Your task to perform on an android device: Open Reddit.com Image 0: 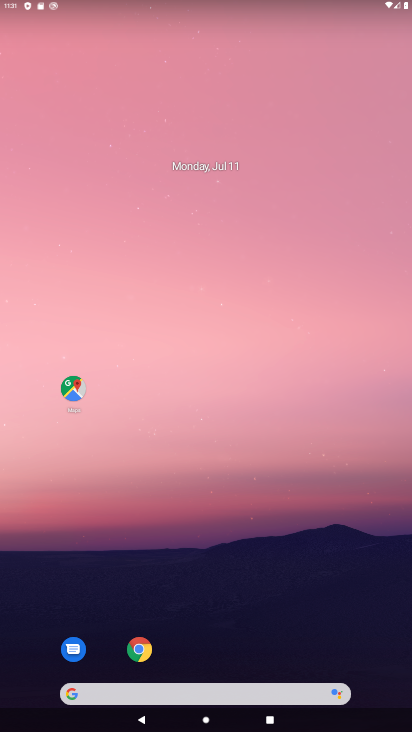
Step 0: drag from (259, 623) to (394, 11)
Your task to perform on an android device: Open Reddit.com Image 1: 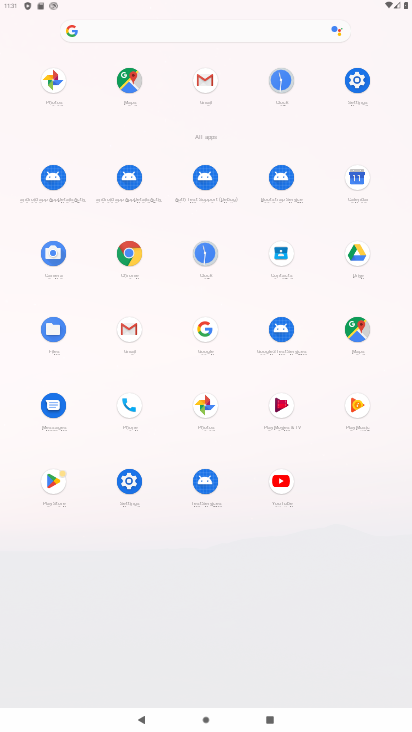
Step 1: click (134, 264)
Your task to perform on an android device: Open Reddit.com Image 2: 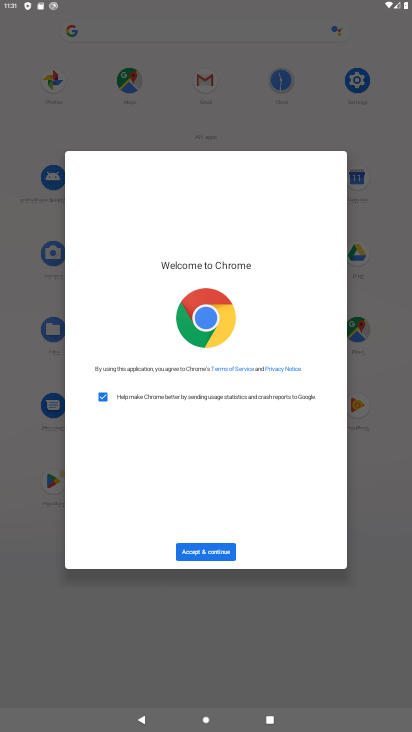
Step 2: click (213, 544)
Your task to perform on an android device: Open Reddit.com Image 3: 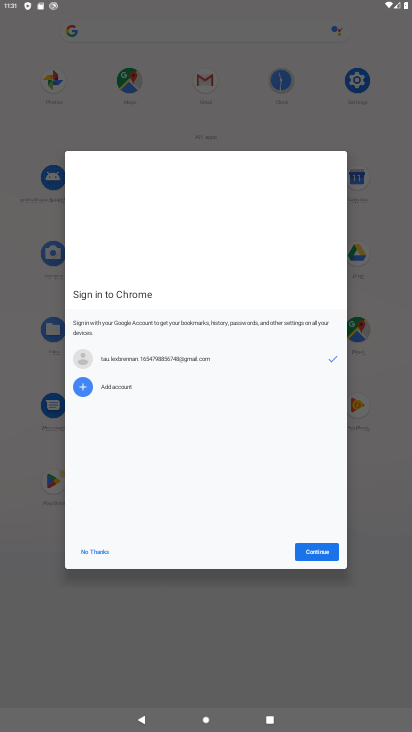
Step 3: click (99, 554)
Your task to perform on an android device: Open Reddit.com Image 4: 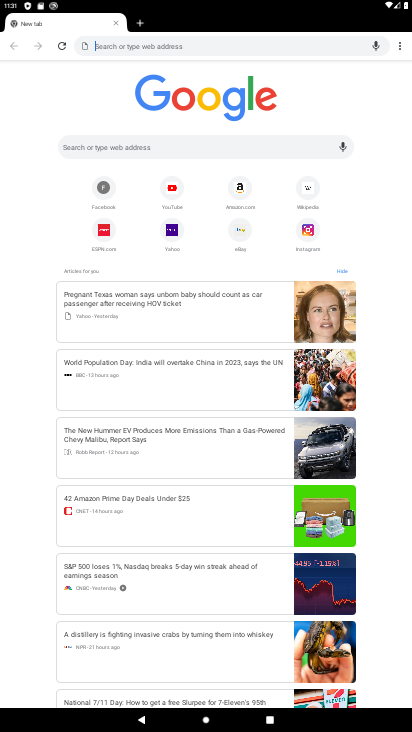
Step 4: click (236, 135)
Your task to perform on an android device: Open Reddit.com Image 5: 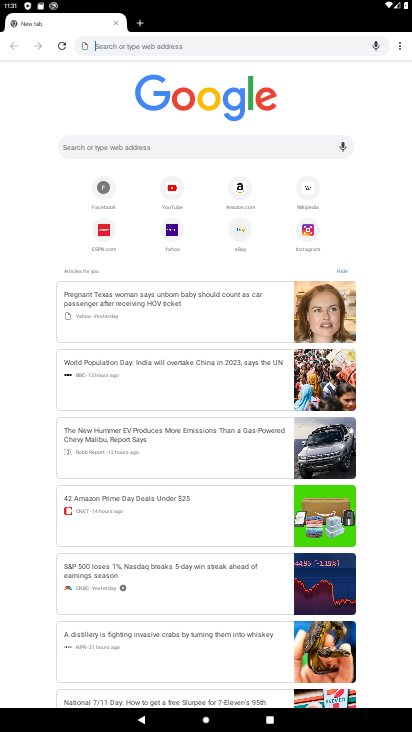
Step 5: click (249, 144)
Your task to perform on an android device: Open Reddit.com Image 6: 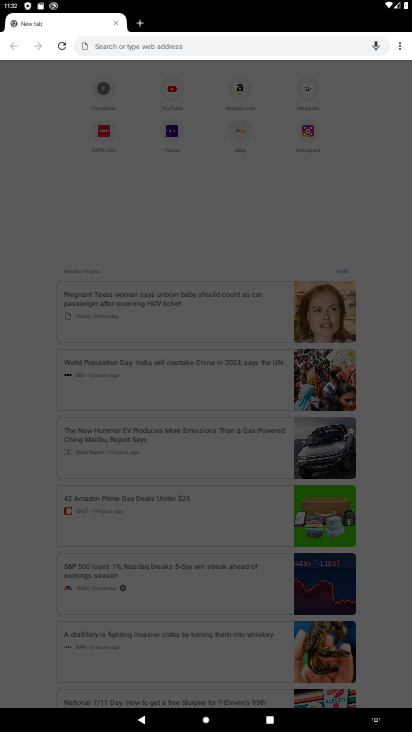
Step 6: type "Reddit.com"
Your task to perform on an android device: Open Reddit.com Image 7: 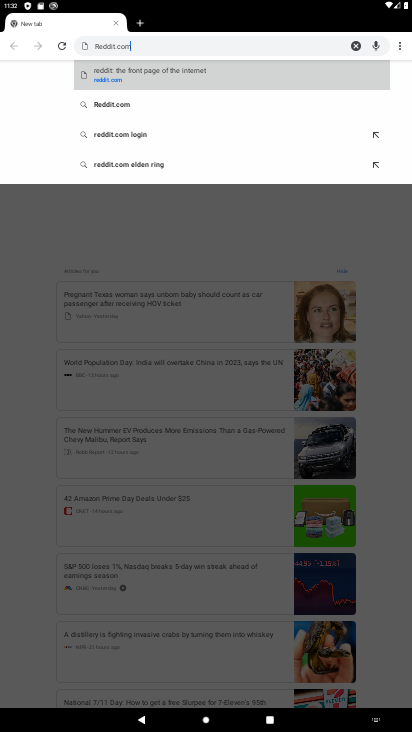
Step 7: press enter
Your task to perform on an android device: Open Reddit.com Image 8: 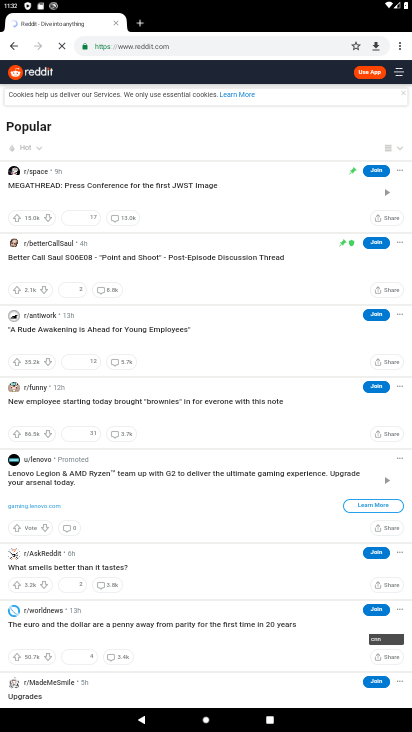
Step 8: task complete